Your task to perform on an android device: check the backup settings in the google photos Image 0: 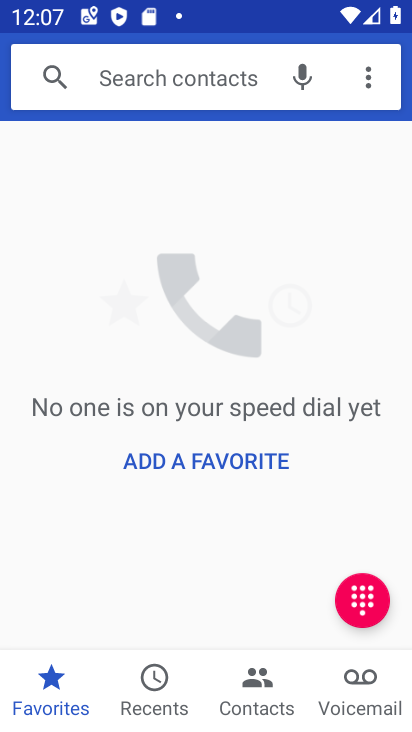
Step 0: press home button
Your task to perform on an android device: check the backup settings in the google photos Image 1: 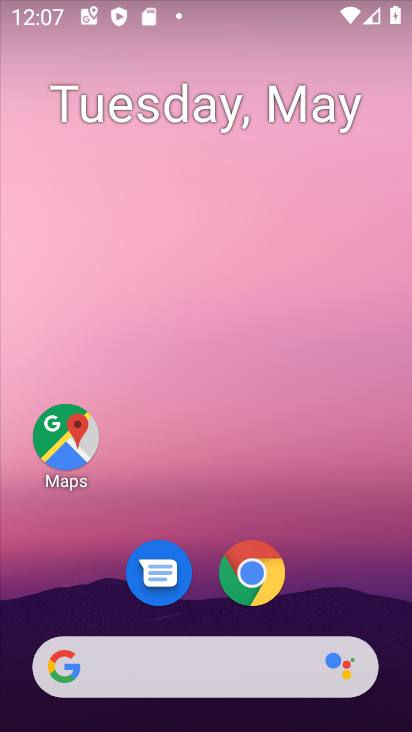
Step 1: drag from (330, 468) to (408, 83)
Your task to perform on an android device: check the backup settings in the google photos Image 2: 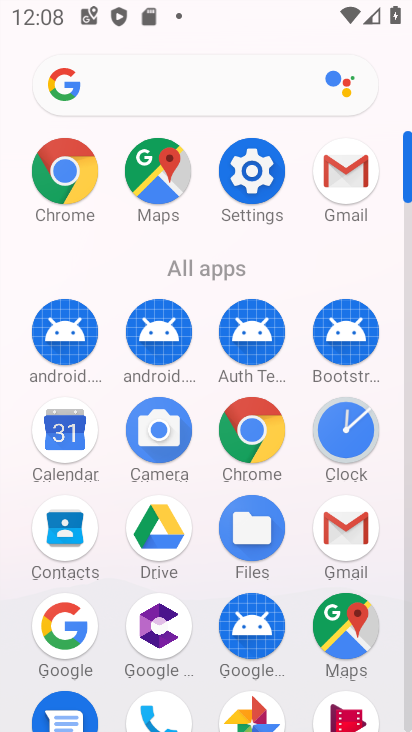
Step 2: drag from (397, 576) to (401, 175)
Your task to perform on an android device: check the backup settings in the google photos Image 3: 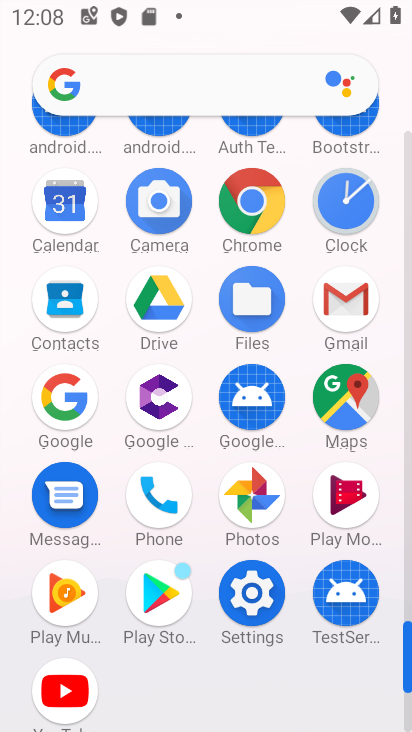
Step 3: click (241, 474)
Your task to perform on an android device: check the backup settings in the google photos Image 4: 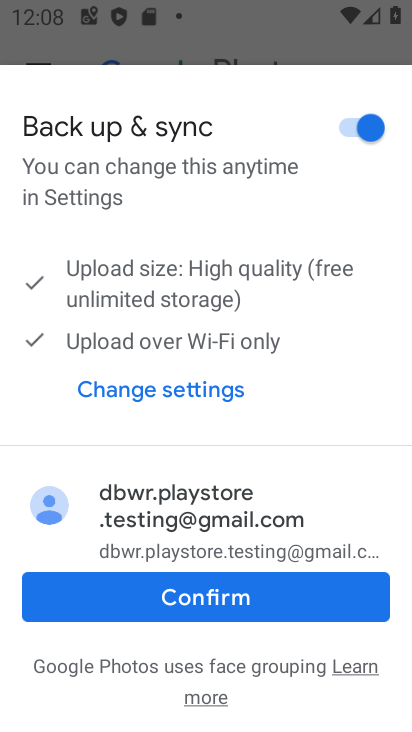
Step 4: click (212, 587)
Your task to perform on an android device: check the backup settings in the google photos Image 5: 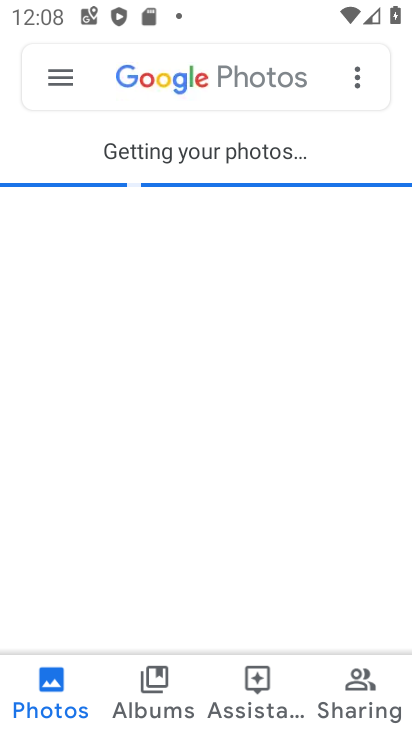
Step 5: click (31, 60)
Your task to perform on an android device: check the backup settings in the google photos Image 6: 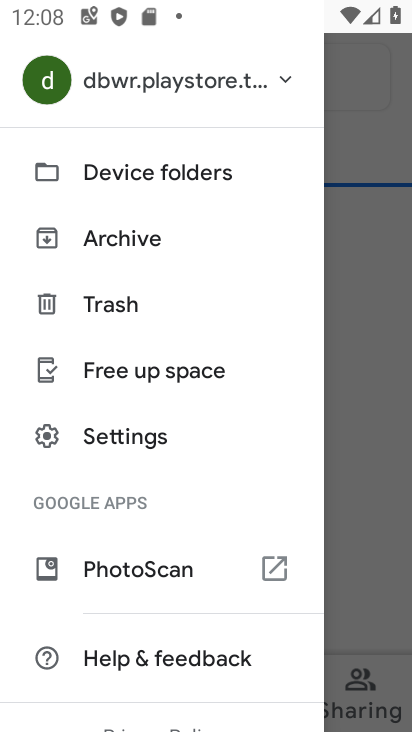
Step 6: drag from (124, 607) to (183, 253)
Your task to perform on an android device: check the backup settings in the google photos Image 7: 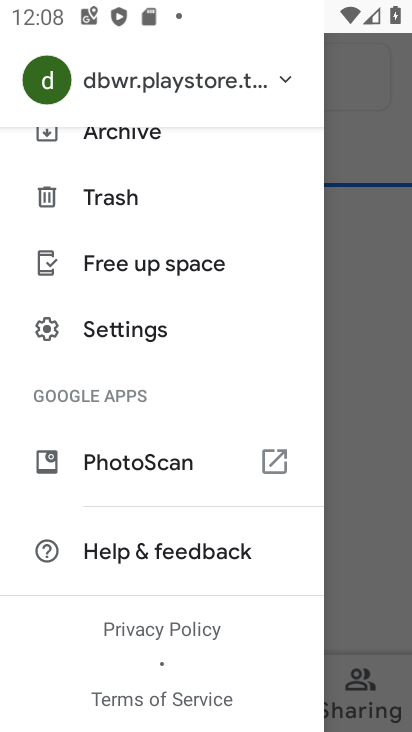
Step 7: click (142, 322)
Your task to perform on an android device: check the backup settings in the google photos Image 8: 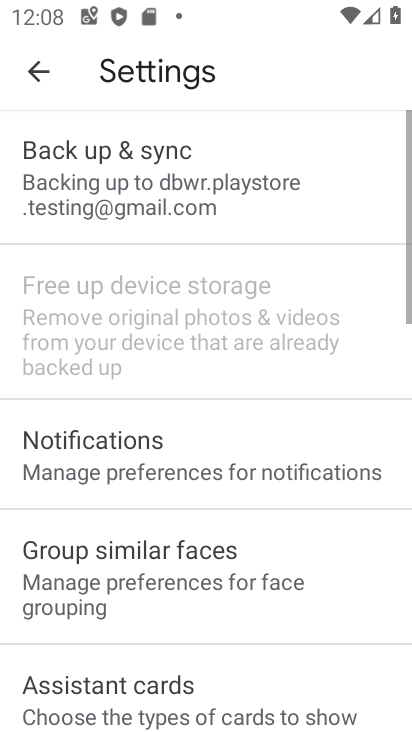
Step 8: click (146, 177)
Your task to perform on an android device: check the backup settings in the google photos Image 9: 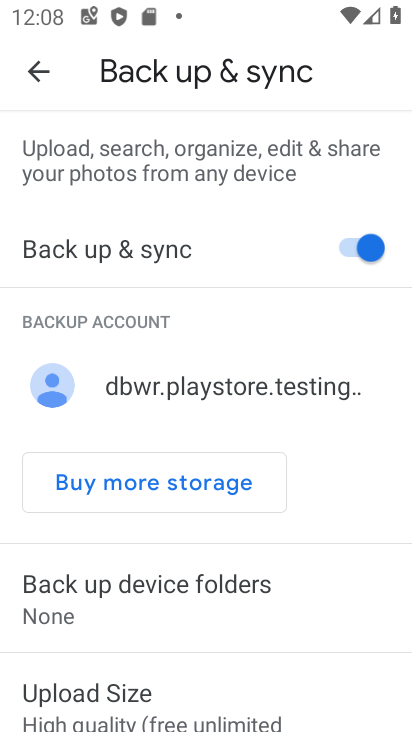
Step 9: task complete